Your task to perform on an android device: toggle sleep mode Image 0: 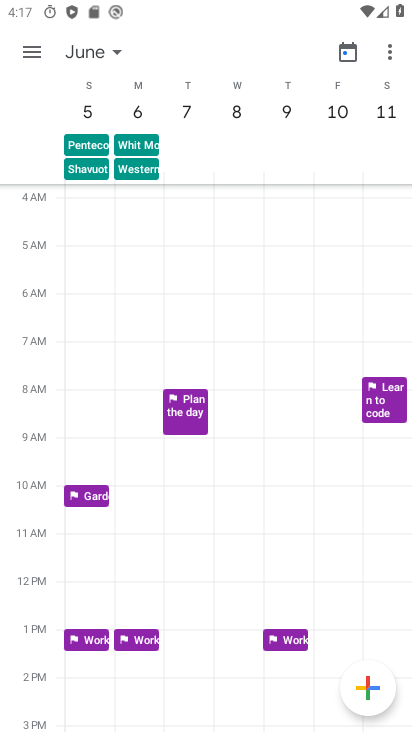
Step 0: press home button
Your task to perform on an android device: toggle sleep mode Image 1: 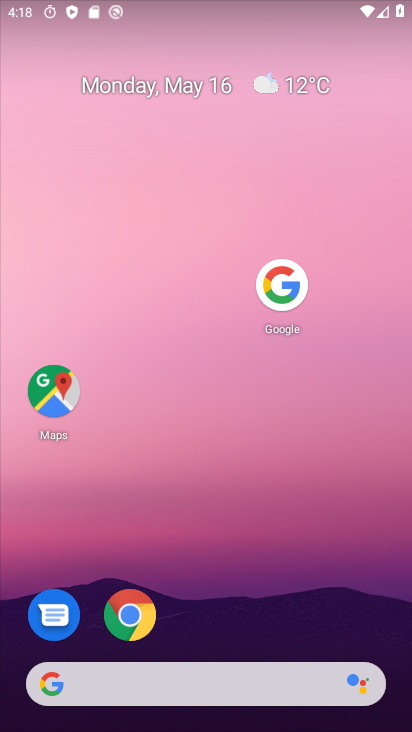
Step 1: drag from (197, 659) to (102, 13)
Your task to perform on an android device: toggle sleep mode Image 2: 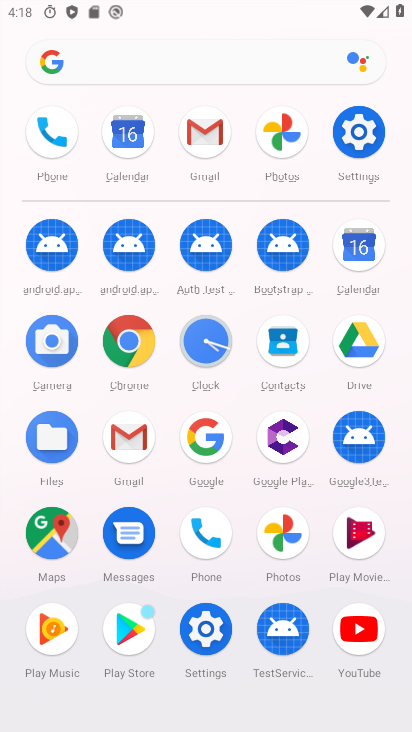
Step 2: click (354, 134)
Your task to perform on an android device: toggle sleep mode Image 3: 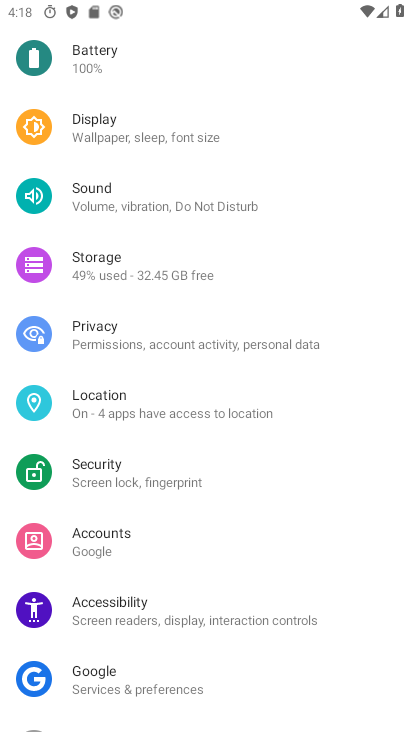
Step 3: click (97, 129)
Your task to perform on an android device: toggle sleep mode Image 4: 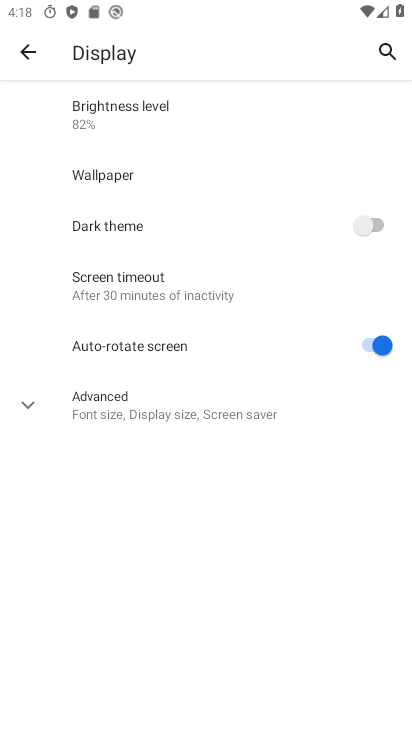
Step 4: task complete